Your task to perform on an android device: turn off javascript in the chrome app Image 0: 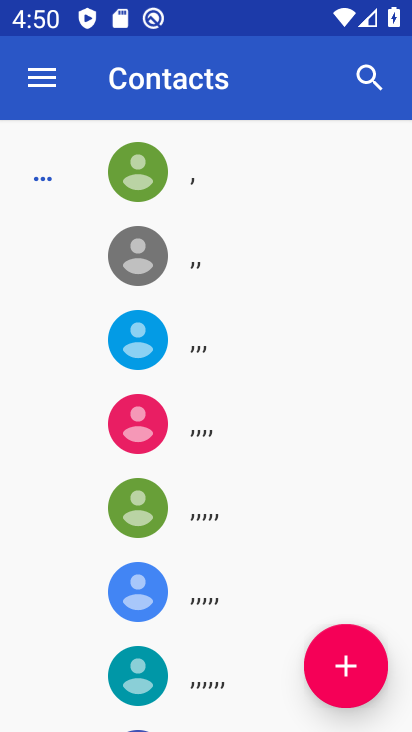
Step 0: press home button
Your task to perform on an android device: turn off javascript in the chrome app Image 1: 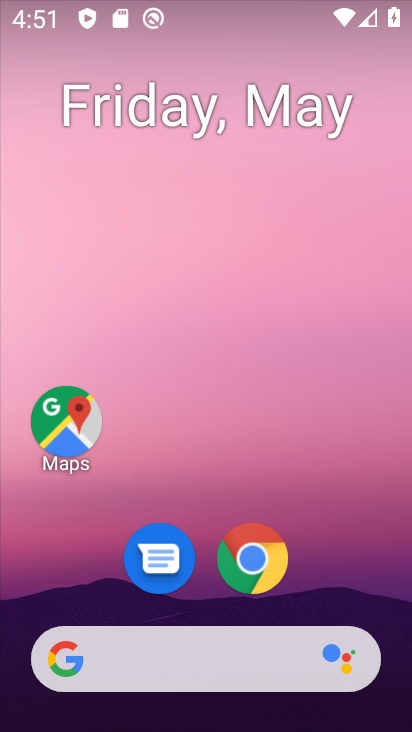
Step 1: click (259, 579)
Your task to perform on an android device: turn off javascript in the chrome app Image 2: 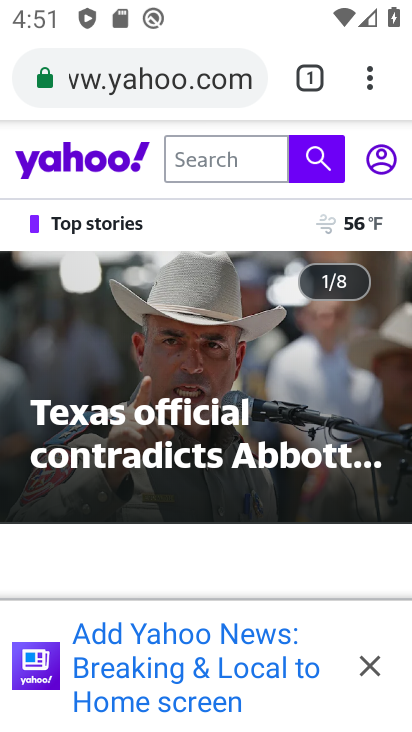
Step 2: click (367, 98)
Your task to perform on an android device: turn off javascript in the chrome app Image 3: 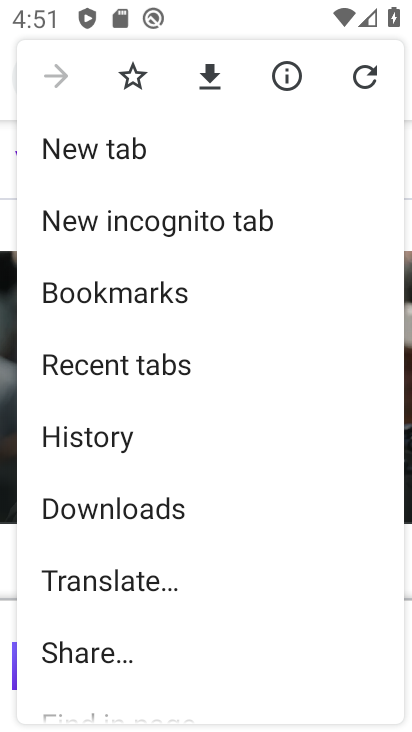
Step 3: drag from (162, 660) to (126, 229)
Your task to perform on an android device: turn off javascript in the chrome app Image 4: 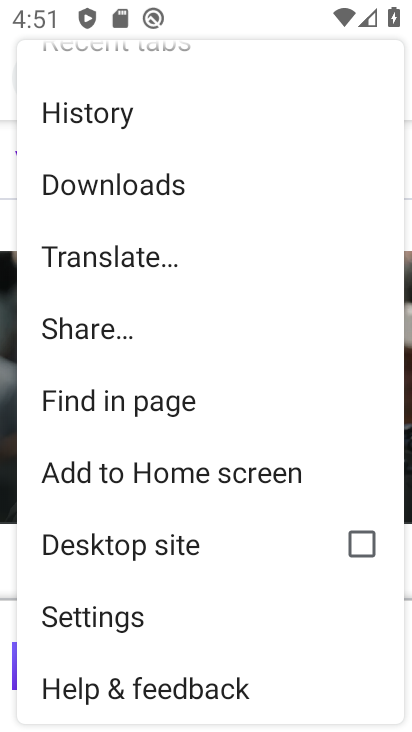
Step 4: click (134, 613)
Your task to perform on an android device: turn off javascript in the chrome app Image 5: 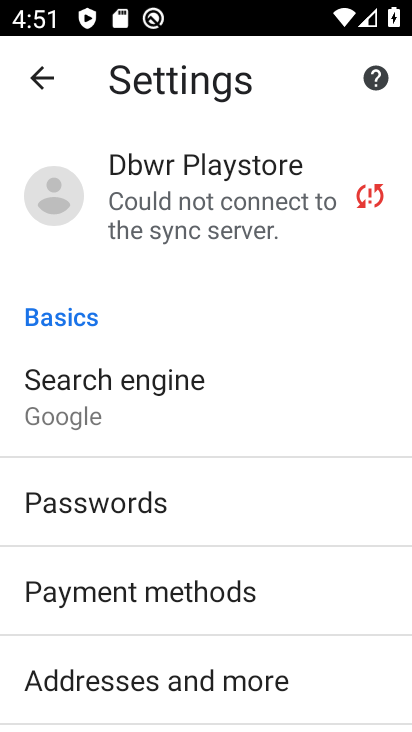
Step 5: drag from (160, 642) to (127, 118)
Your task to perform on an android device: turn off javascript in the chrome app Image 6: 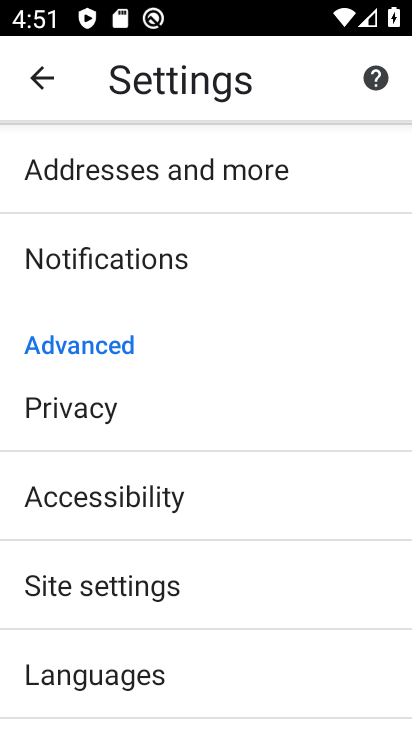
Step 6: click (152, 602)
Your task to perform on an android device: turn off javascript in the chrome app Image 7: 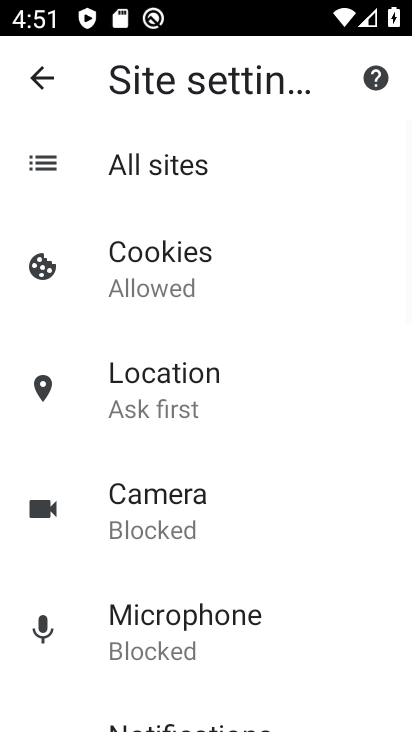
Step 7: drag from (204, 673) to (162, 326)
Your task to perform on an android device: turn off javascript in the chrome app Image 8: 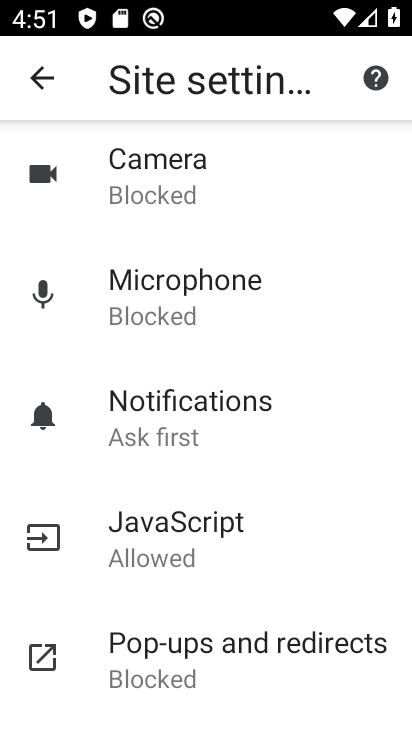
Step 8: click (180, 521)
Your task to perform on an android device: turn off javascript in the chrome app Image 9: 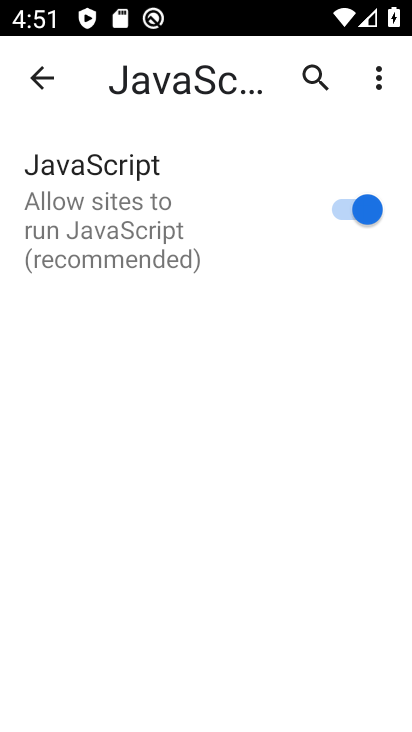
Step 9: click (346, 206)
Your task to perform on an android device: turn off javascript in the chrome app Image 10: 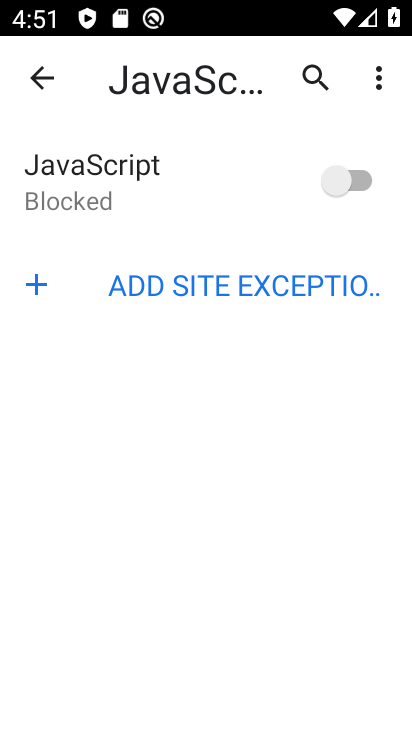
Step 10: task complete